Your task to perform on an android device: Open Youtube and go to the subscriptions tab Image 0: 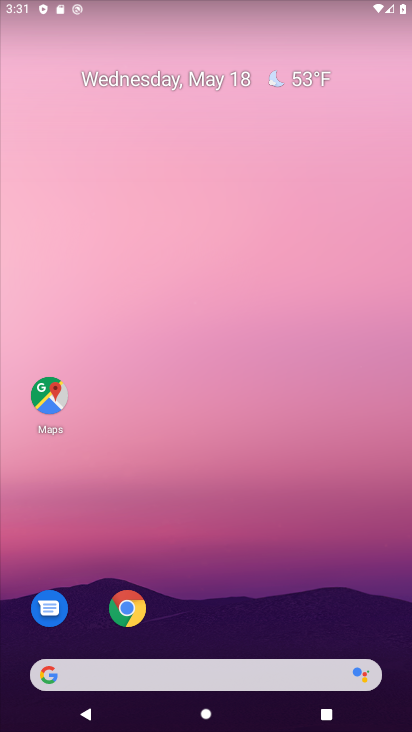
Step 0: drag from (197, 703) to (259, 151)
Your task to perform on an android device: Open Youtube and go to the subscriptions tab Image 1: 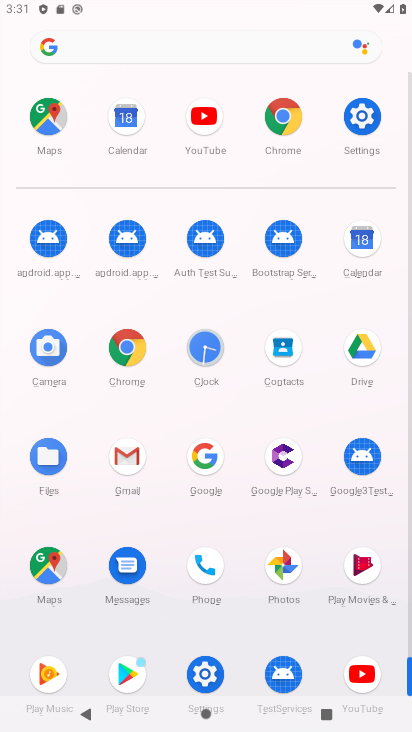
Step 1: click (364, 671)
Your task to perform on an android device: Open Youtube and go to the subscriptions tab Image 2: 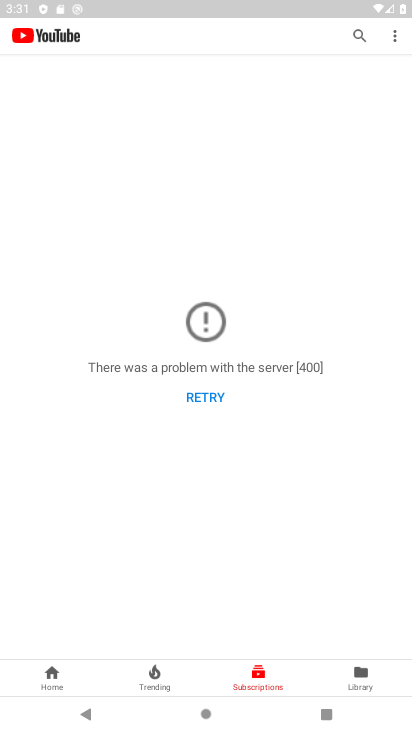
Step 2: click (215, 396)
Your task to perform on an android device: Open Youtube and go to the subscriptions tab Image 3: 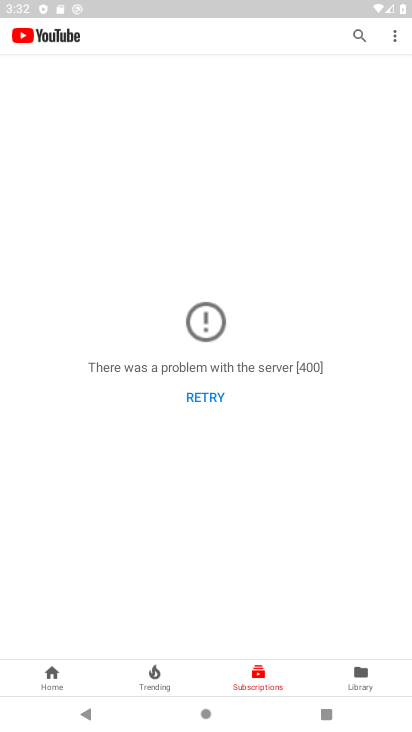
Step 3: click (260, 677)
Your task to perform on an android device: Open Youtube and go to the subscriptions tab Image 4: 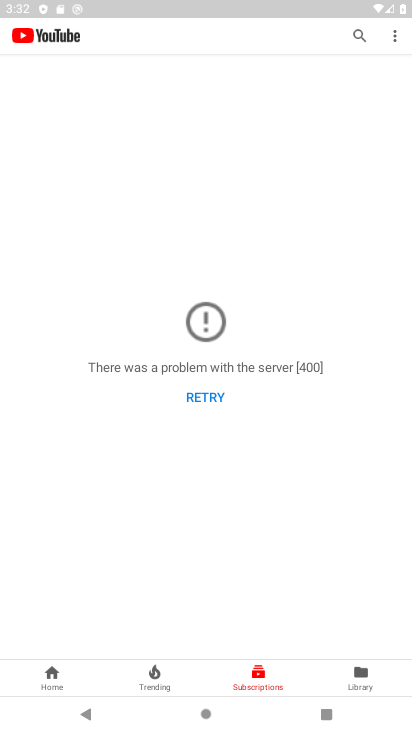
Step 4: task complete